Your task to perform on an android device: Show me productivity apps on the Play Store Image 0: 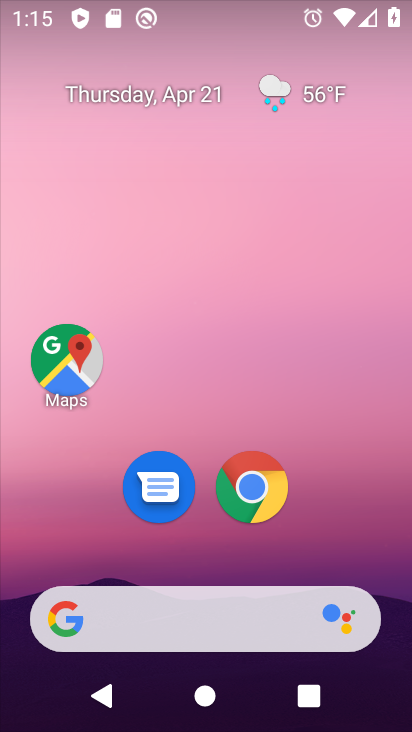
Step 0: drag from (309, 534) to (286, 156)
Your task to perform on an android device: Show me productivity apps on the Play Store Image 1: 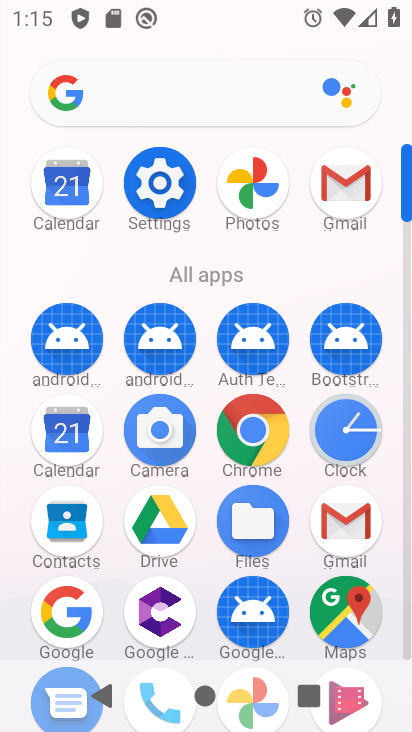
Step 1: drag from (212, 603) to (205, 274)
Your task to perform on an android device: Show me productivity apps on the Play Store Image 2: 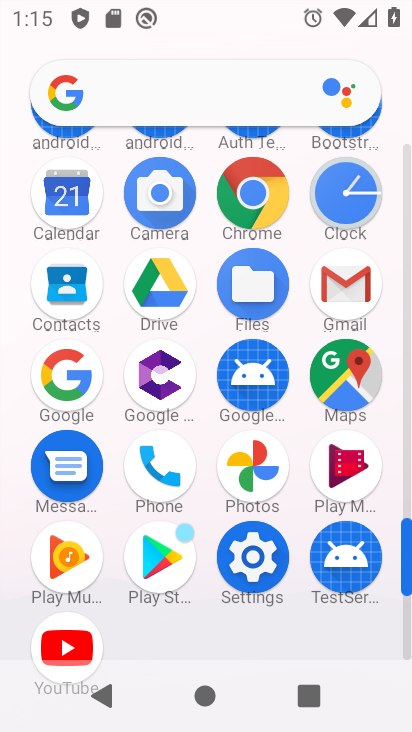
Step 2: click (179, 552)
Your task to perform on an android device: Show me productivity apps on the Play Store Image 3: 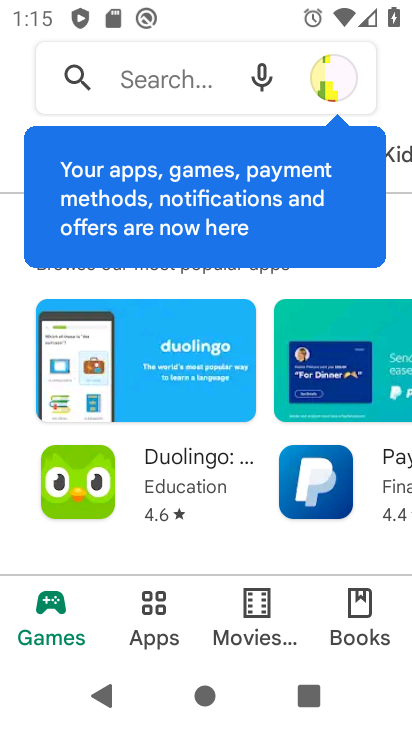
Step 3: click (159, 621)
Your task to perform on an android device: Show me productivity apps on the Play Store Image 4: 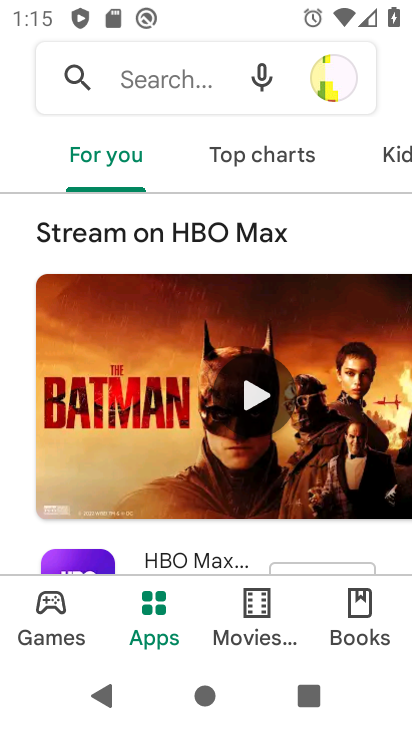
Step 4: drag from (321, 165) to (78, 175)
Your task to perform on an android device: Show me productivity apps on the Play Store Image 5: 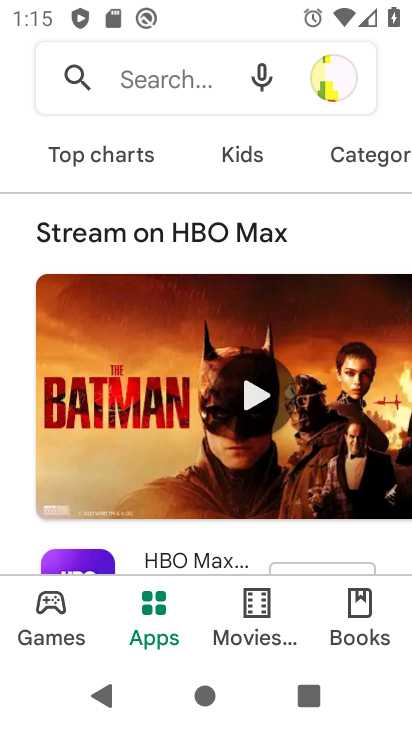
Step 5: click (320, 152)
Your task to perform on an android device: Show me productivity apps on the Play Store Image 6: 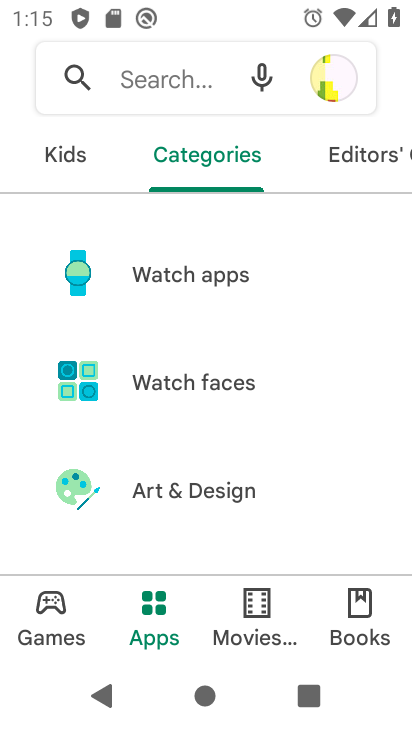
Step 6: drag from (264, 526) to (226, 152)
Your task to perform on an android device: Show me productivity apps on the Play Store Image 7: 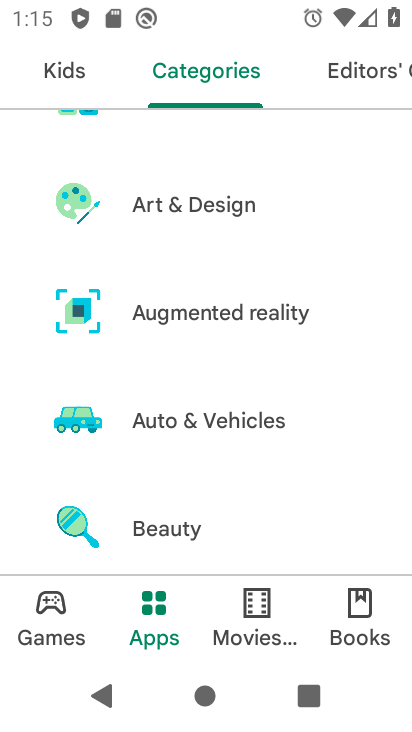
Step 7: drag from (157, 529) to (179, 79)
Your task to perform on an android device: Show me productivity apps on the Play Store Image 8: 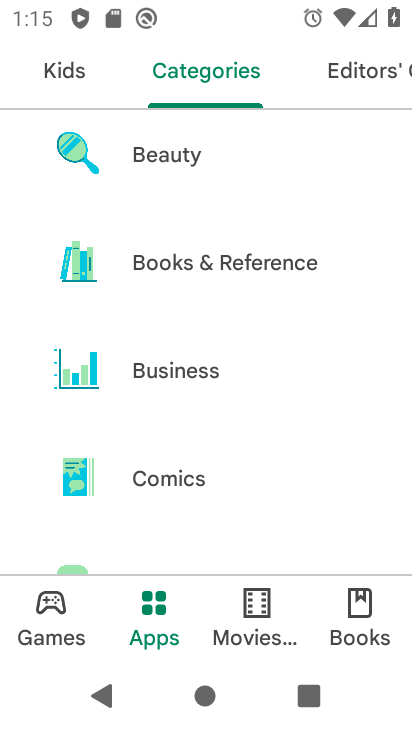
Step 8: drag from (330, 486) to (336, 92)
Your task to perform on an android device: Show me productivity apps on the Play Store Image 9: 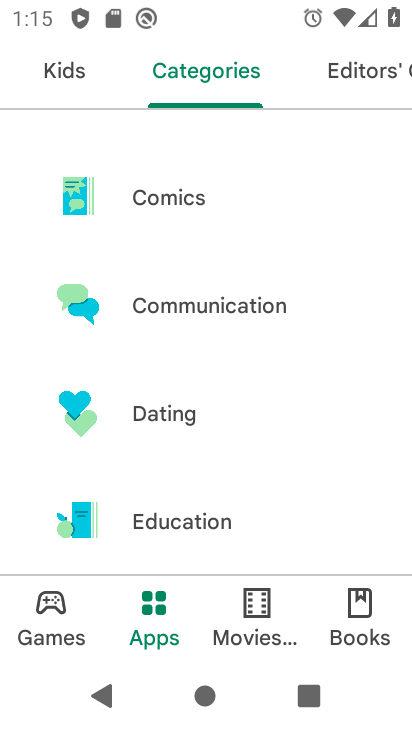
Step 9: drag from (330, 463) to (310, 136)
Your task to perform on an android device: Show me productivity apps on the Play Store Image 10: 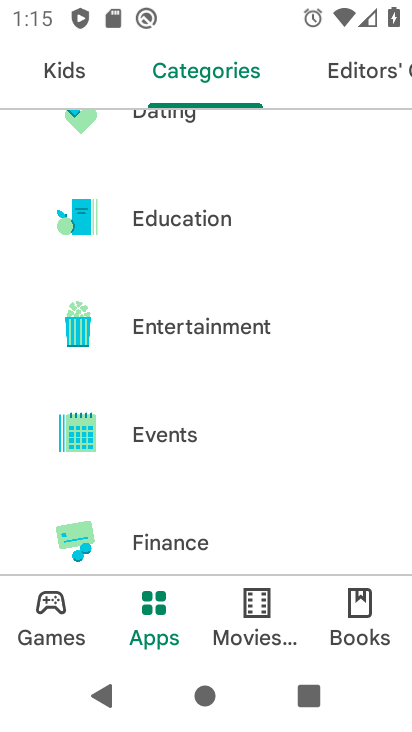
Step 10: drag from (316, 497) to (330, 127)
Your task to perform on an android device: Show me productivity apps on the Play Store Image 11: 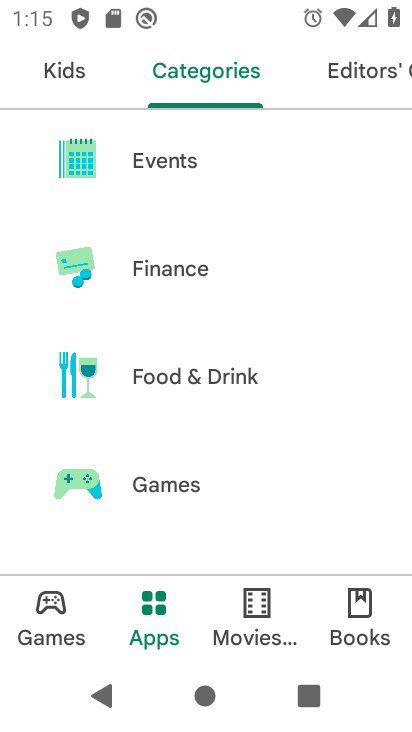
Step 11: drag from (320, 504) to (309, 129)
Your task to perform on an android device: Show me productivity apps on the Play Store Image 12: 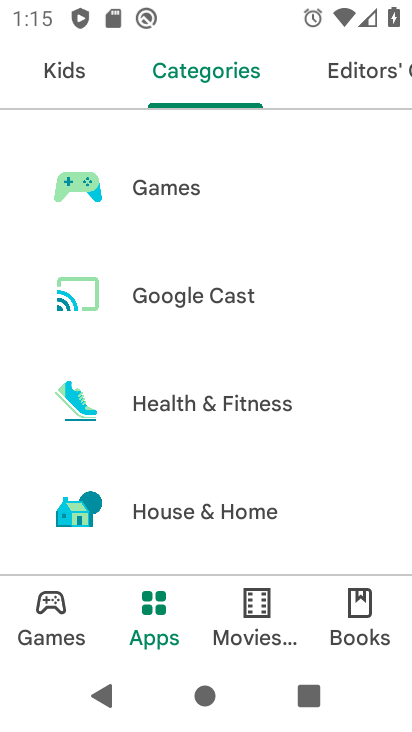
Step 12: drag from (333, 488) to (371, 158)
Your task to perform on an android device: Show me productivity apps on the Play Store Image 13: 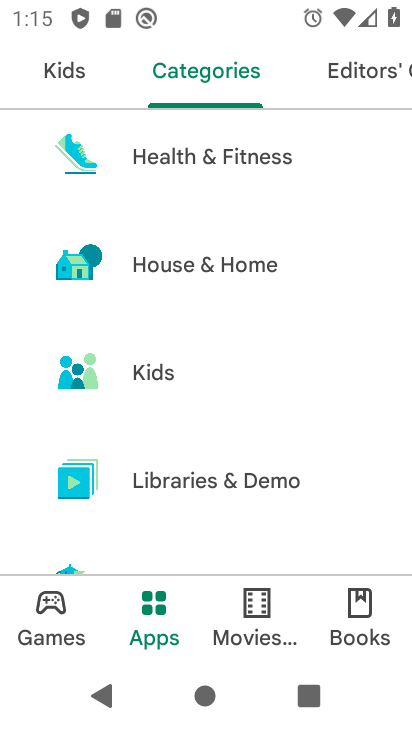
Step 13: drag from (366, 439) to (339, 160)
Your task to perform on an android device: Show me productivity apps on the Play Store Image 14: 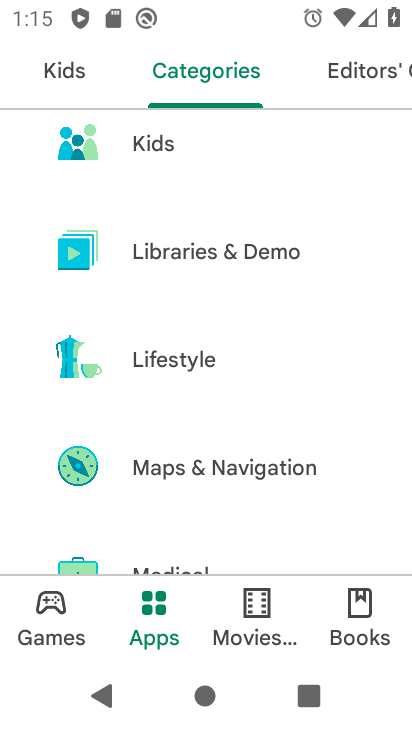
Step 14: drag from (353, 503) to (366, 184)
Your task to perform on an android device: Show me productivity apps on the Play Store Image 15: 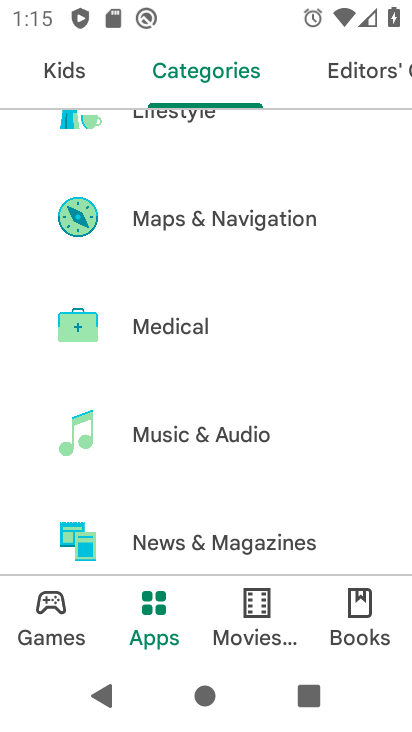
Step 15: drag from (355, 512) to (357, 167)
Your task to perform on an android device: Show me productivity apps on the Play Store Image 16: 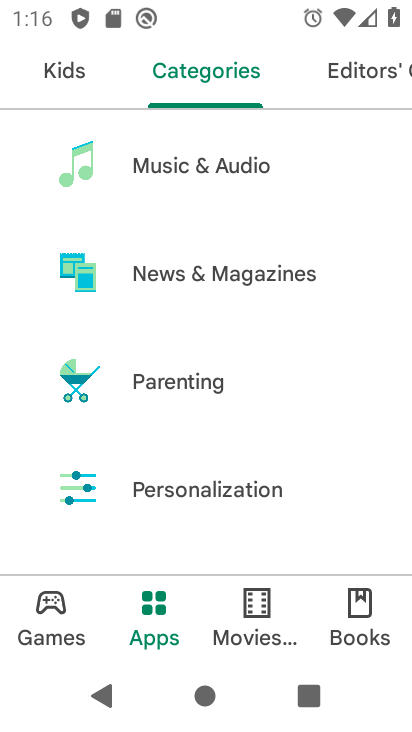
Step 16: drag from (318, 487) to (360, 141)
Your task to perform on an android device: Show me productivity apps on the Play Store Image 17: 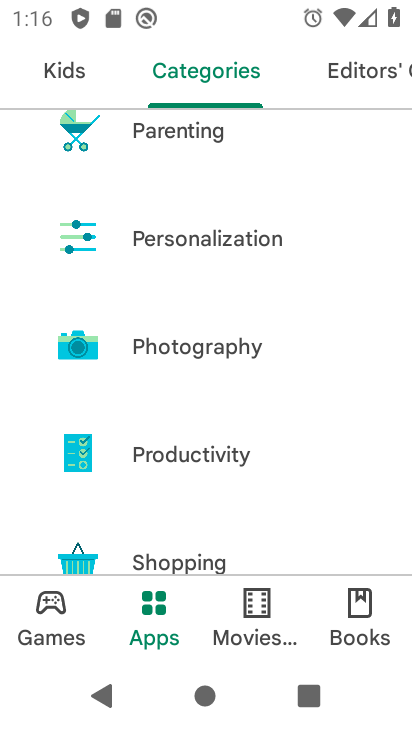
Step 17: click (209, 454)
Your task to perform on an android device: Show me productivity apps on the Play Store Image 18: 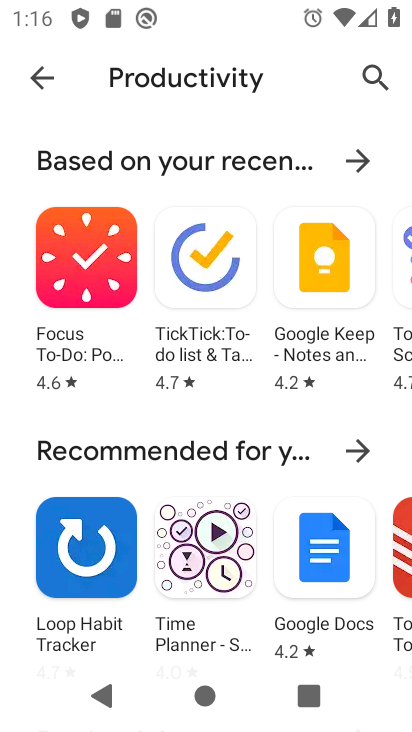
Step 18: task complete